Your task to perform on an android device: Open Amazon Image 0: 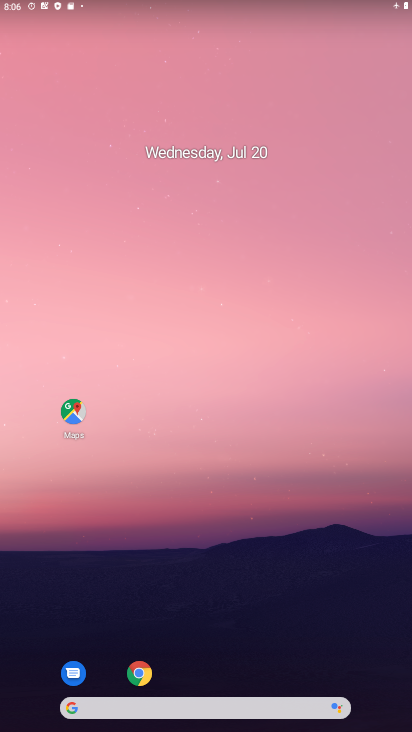
Step 0: drag from (370, 679) to (149, 37)
Your task to perform on an android device: Open Amazon Image 1: 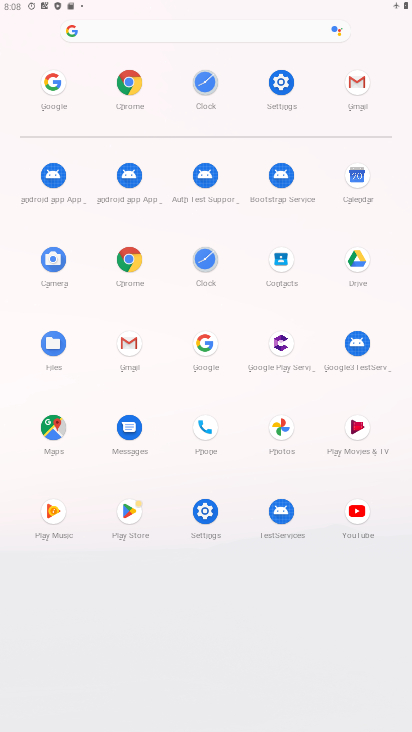
Step 1: click (206, 357)
Your task to perform on an android device: Open Amazon Image 2: 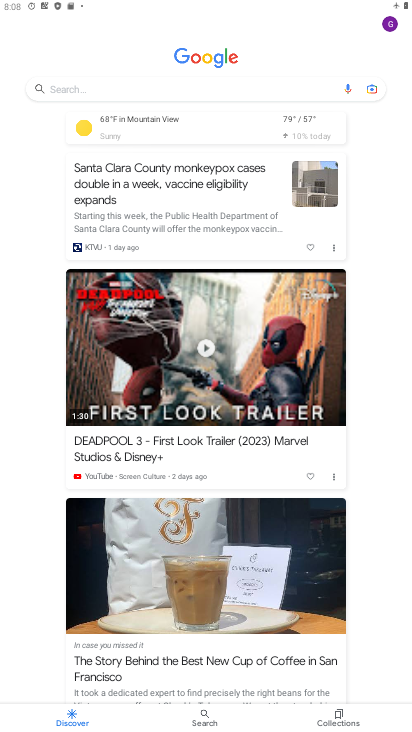
Step 2: click (123, 81)
Your task to perform on an android device: Open Amazon Image 3: 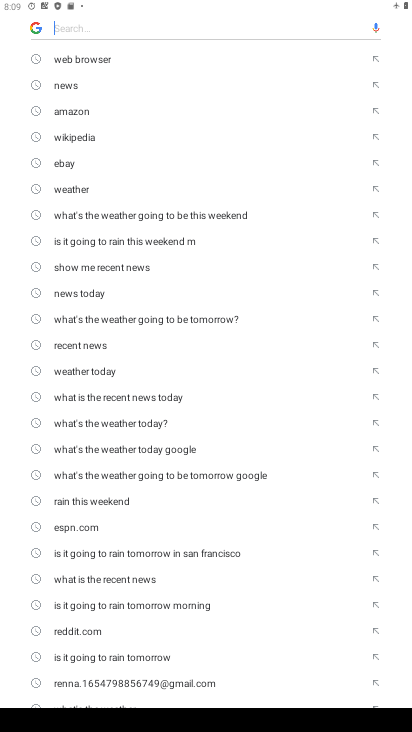
Step 3: click (78, 117)
Your task to perform on an android device: Open Amazon Image 4: 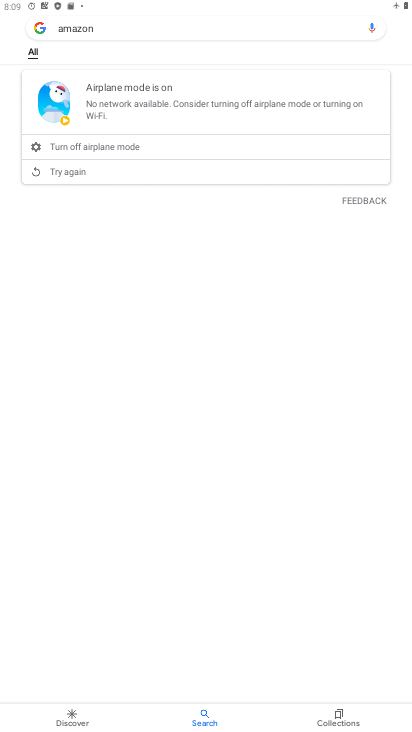
Step 4: task complete